Your task to perform on an android device: turn off notifications settings in the gmail app Image 0: 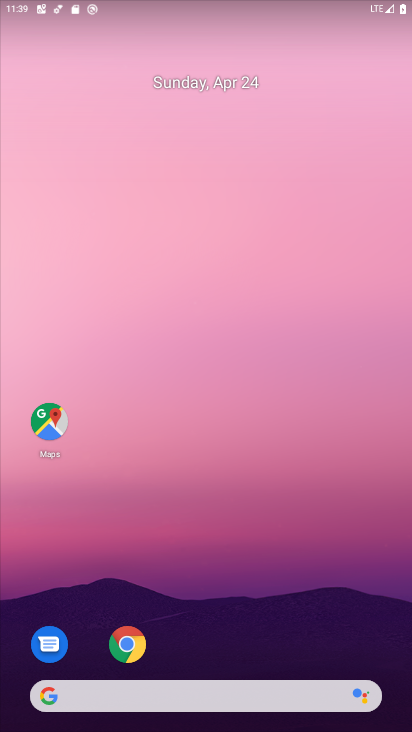
Step 0: drag from (246, 635) to (297, 0)
Your task to perform on an android device: turn off notifications settings in the gmail app Image 1: 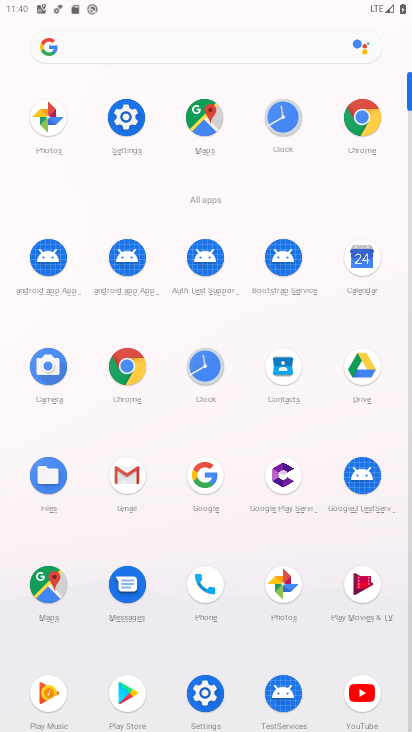
Step 1: click (123, 489)
Your task to perform on an android device: turn off notifications settings in the gmail app Image 2: 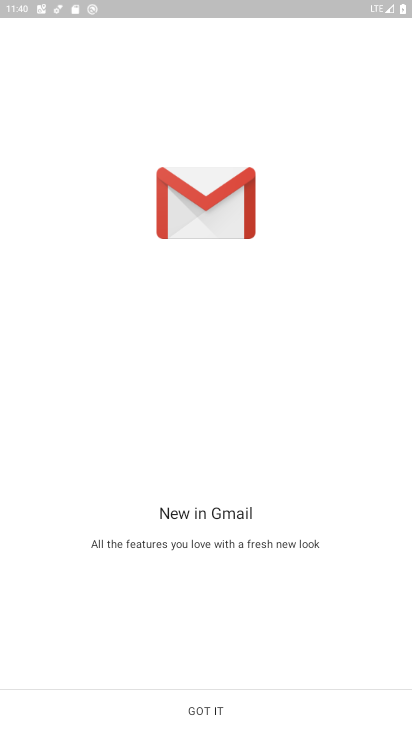
Step 2: click (221, 714)
Your task to perform on an android device: turn off notifications settings in the gmail app Image 3: 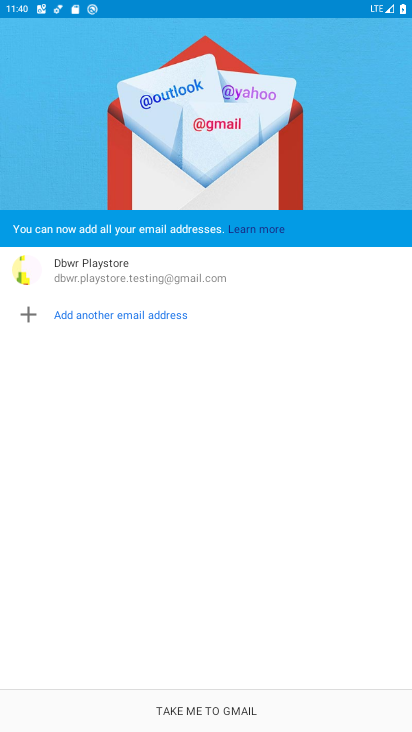
Step 3: click (234, 709)
Your task to perform on an android device: turn off notifications settings in the gmail app Image 4: 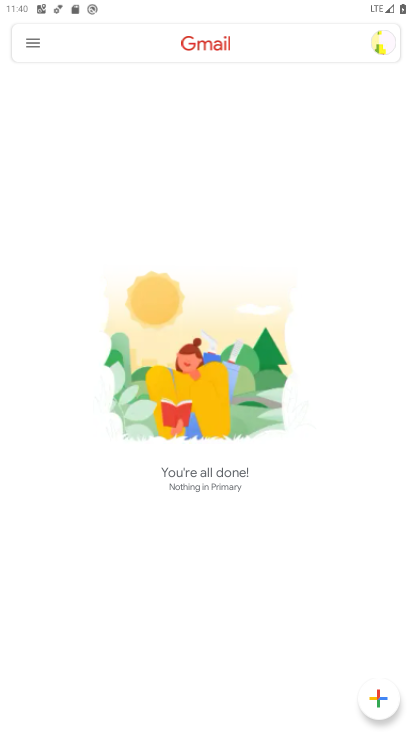
Step 4: click (28, 45)
Your task to perform on an android device: turn off notifications settings in the gmail app Image 5: 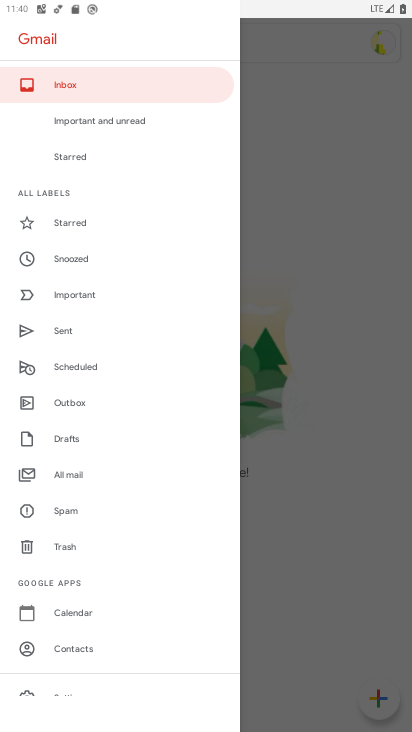
Step 5: drag from (80, 600) to (174, 80)
Your task to perform on an android device: turn off notifications settings in the gmail app Image 6: 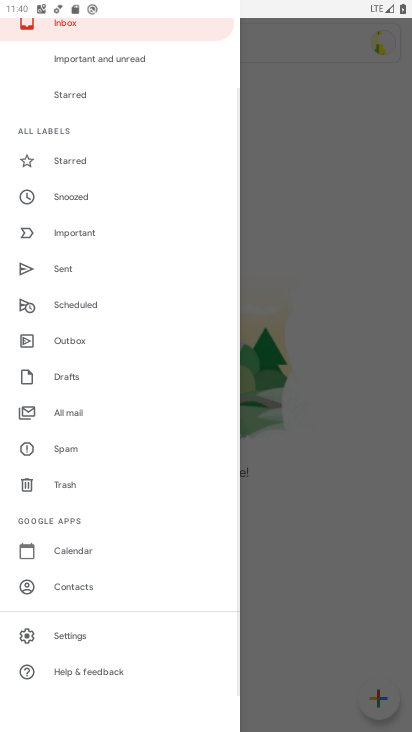
Step 6: click (78, 637)
Your task to perform on an android device: turn off notifications settings in the gmail app Image 7: 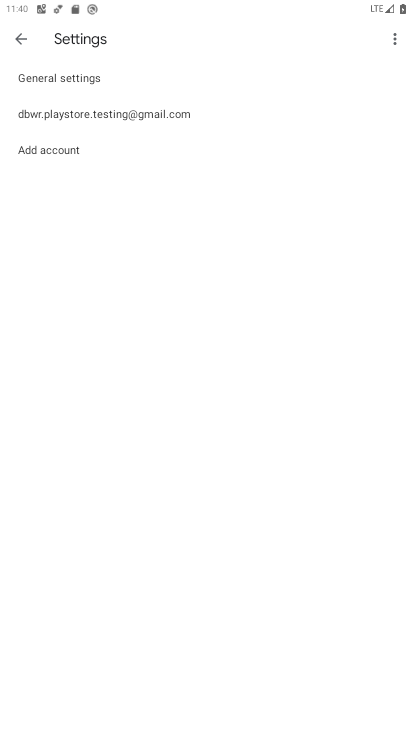
Step 7: click (52, 75)
Your task to perform on an android device: turn off notifications settings in the gmail app Image 8: 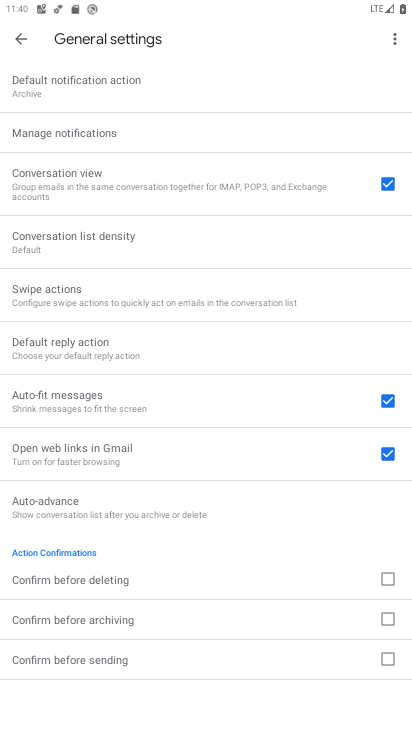
Step 8: click (68, 136)
Your task to perform on an android device: turn off notifications settings in the gmail app Image 9: 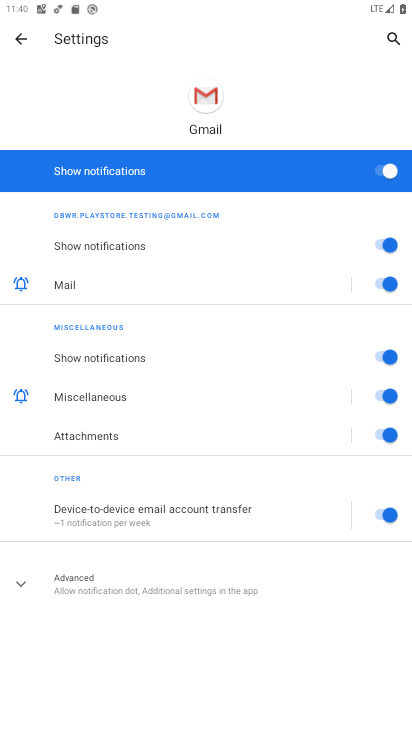
Step 9: click (379, 169)
Your task to perform on an android device: turn off notifications settings in the gmail app Image 10: 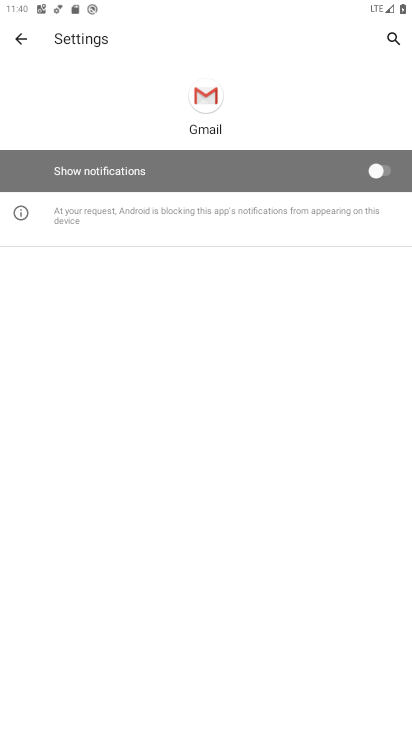
Step 10: task complete